Your task to perform on an android device: Search for vegetarian restaurants on Maps Image 0: 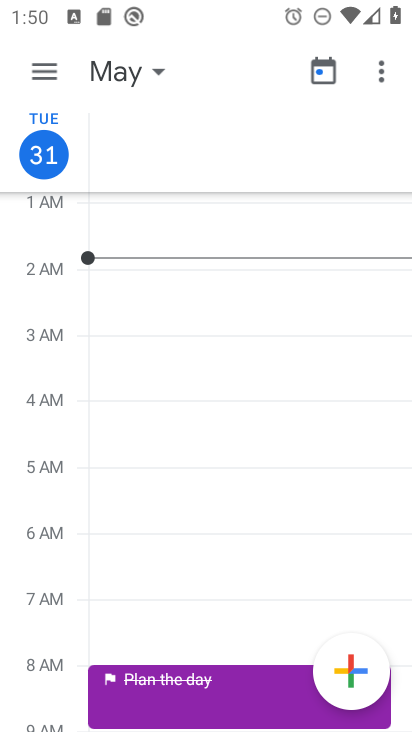
Step 0: press home button
Your task to perform on an android device: Search for vegetarian restaurants on Maps Image 1: 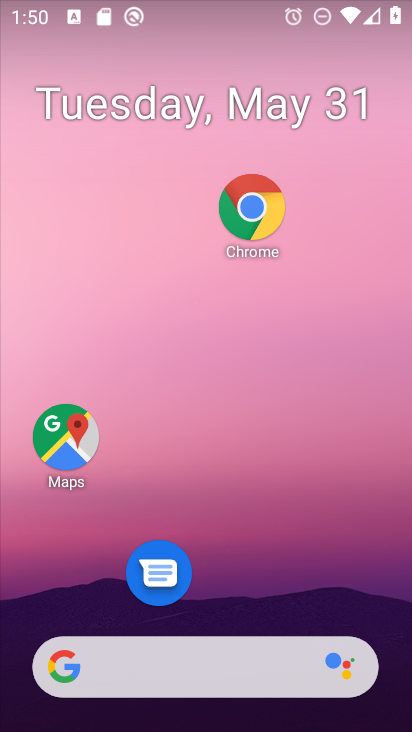
Step 1: drag from (222, 408) to (214, 6)
Your task to perform on an android device: Search for vegetarian restaurants on Maps Image 2: 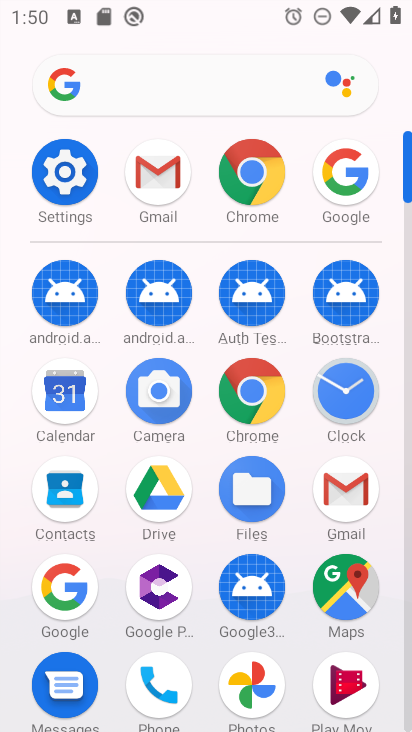
Step 2: click (353, 586)
Your task to perform on an android device: Search for vegetarian restaurants on Maps Image 3: 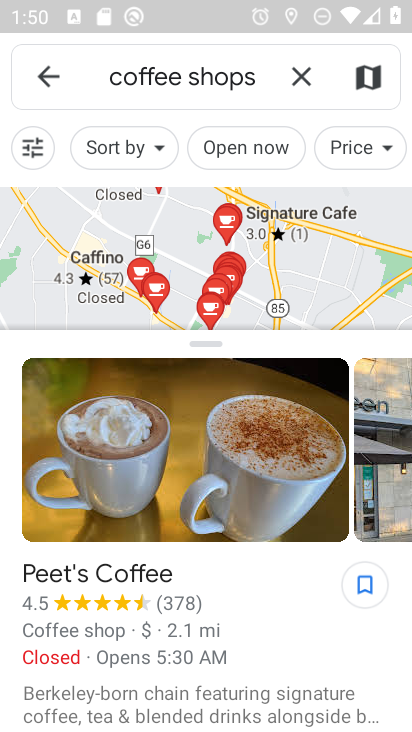
Step 3: click (294, 87)
Your task to perform on an android device: Search for vegetarian restaurants on Maps Image 4: 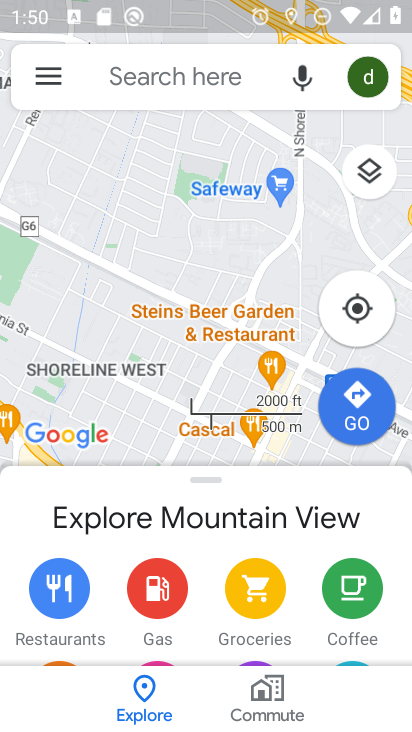
Step 4: click (234, 76)
Your task to perform on an android device: Search for vegetarian restaurants on Maps Image 5: 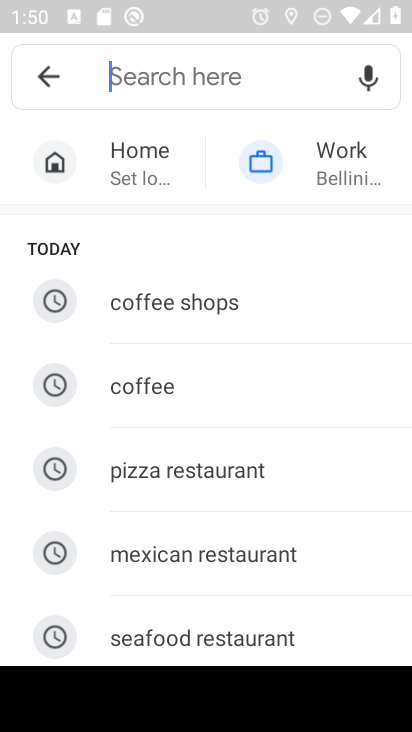
Step 5: drag from (222, 449) to (250, 163)
Your task to perform on an android device: Search for vegetarian restaurants on Maps Image 6: 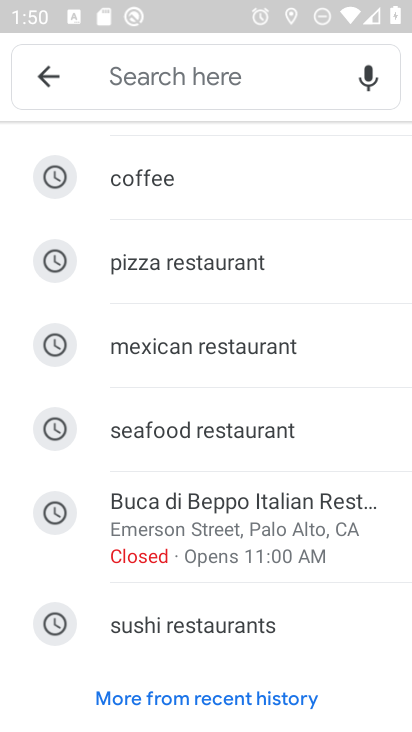
Step 6: drag from (235, 287) to (239, 594)
Your task to perform on an android device: Search for vegetarian restaurants on Maps Image 7: 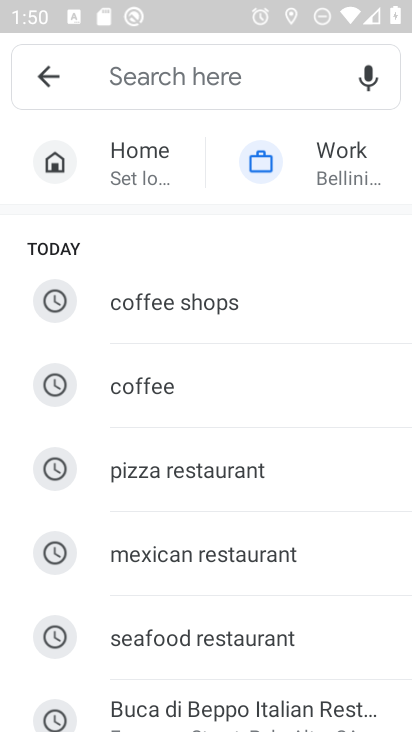
Step 7: click (248, 80)
Your task to perform on an android device: Search for vegetarian restaurants on Maps Image 8: 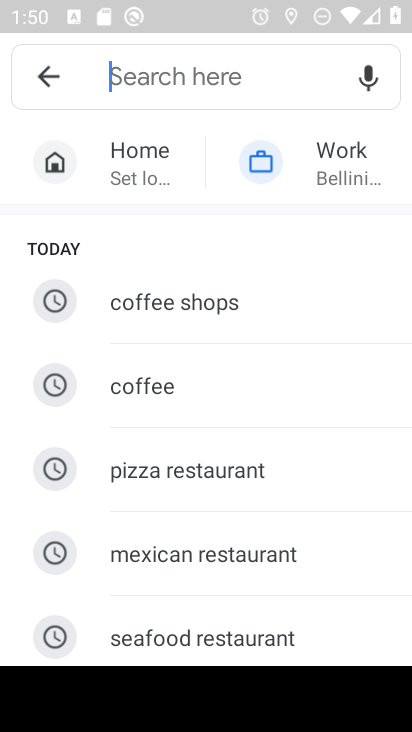
Step 8: type "vege"
Your task to perform on an android device: Search for vegetarian restaurants on Maps Image 9: 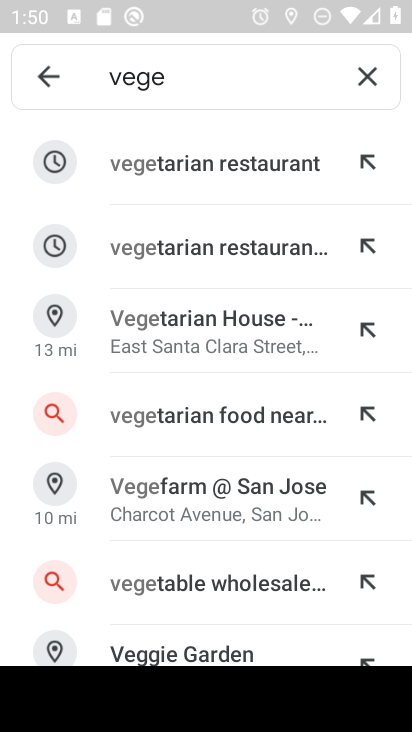
Step 9: click (275, 166)
Your task to perform on an android device: Search for vegetarian restaurants on Maps Image 10: 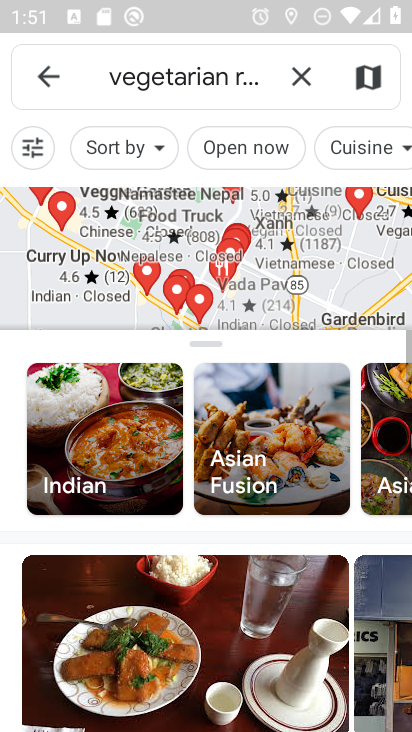
Step 10: task complete